Your task to perform on an android device: turn notification dots off Image 0: 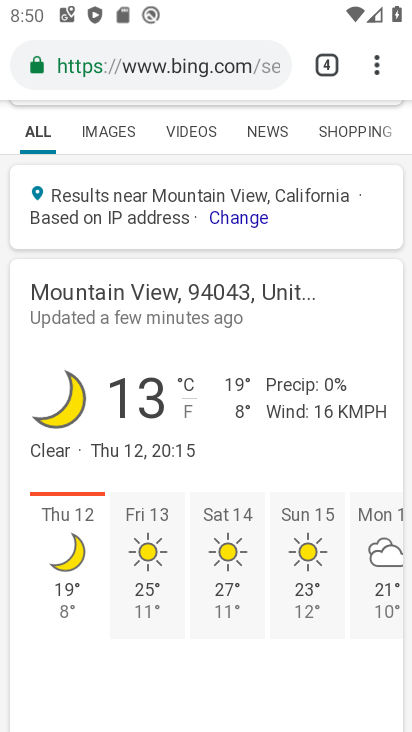
Step 0: press home button
Your task to perform on an android device: turn notification dots off Image 1: 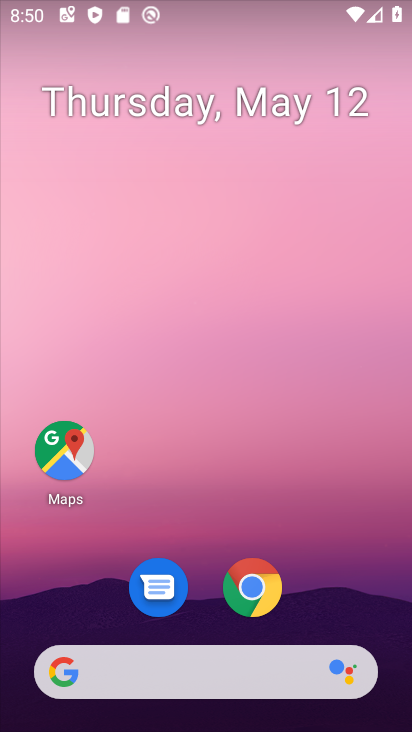
Step 1: drag from (307, 564) to (309, 273)
Your task to perform on an android device: turn notification dots off Image 2: 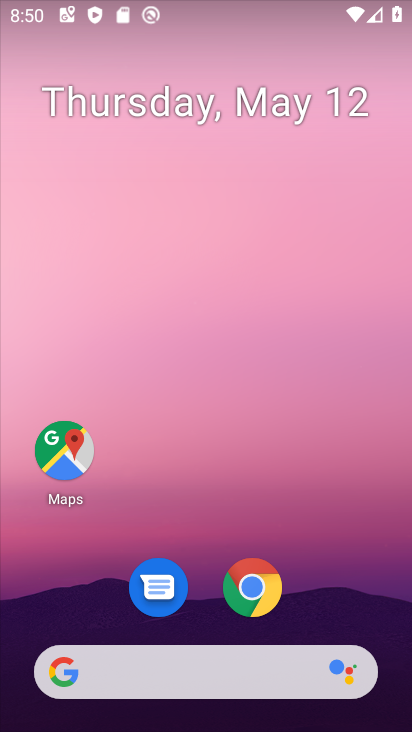
Step 2: drag from (296, 604) to (300, 231)
Your task to perform on an android device: turn notification dots off Image 3: 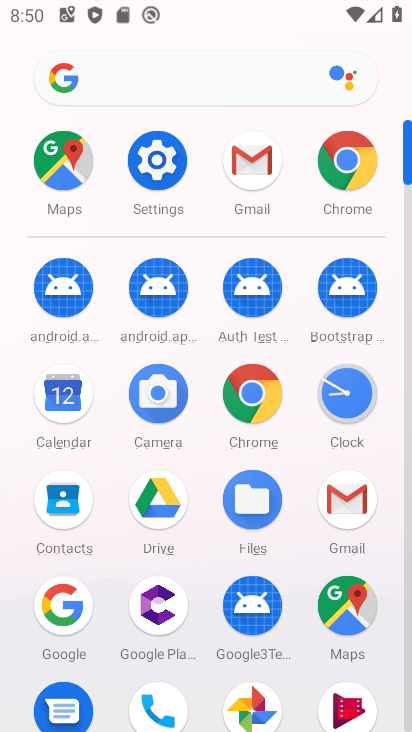
Step 3: click (146, 158)
Your task to perform on an android device: turn notification dots off Image 4: 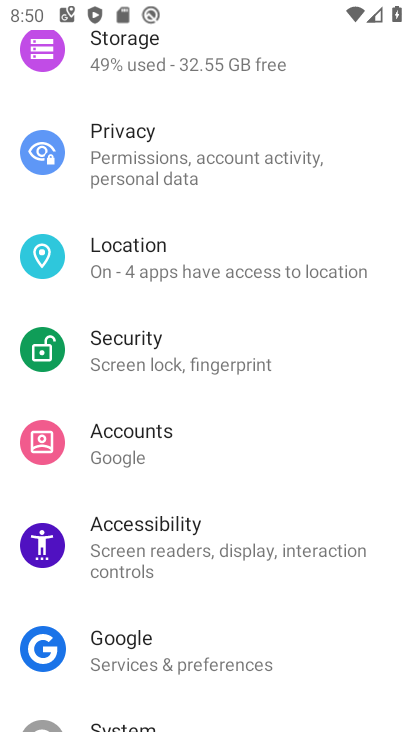
Step 4: drag from (203, 143) to (203, 684)
Your task to perform on an android device: turn notification dots off Image 5: 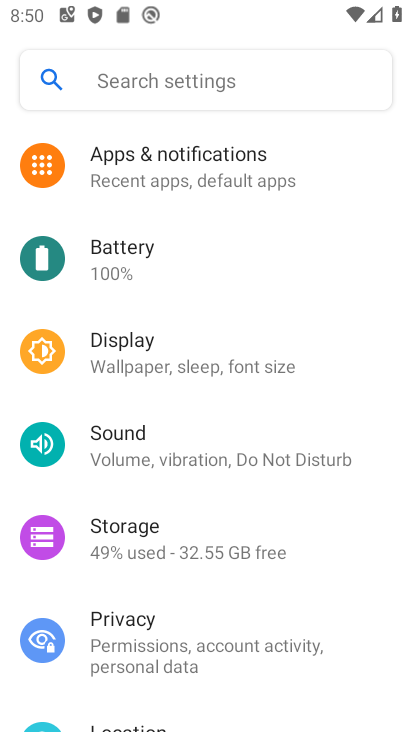
Step 5: click (175, 75)
Your task to perform on an android device: turn notification dots off Image 6: 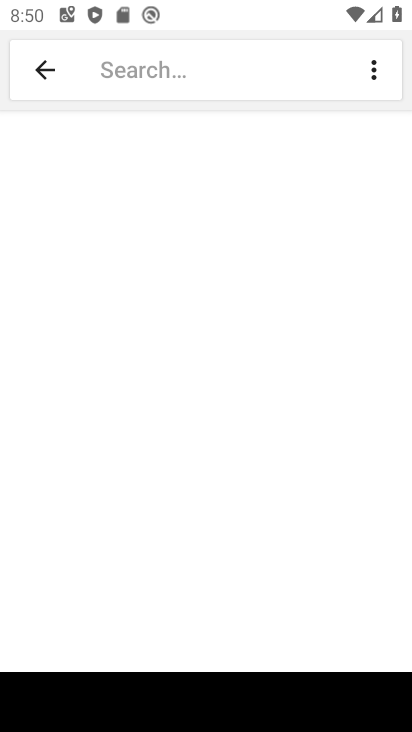
Step 6: click (157, 50)
Your task to perform on an android device: turn notification dots off Image 7: 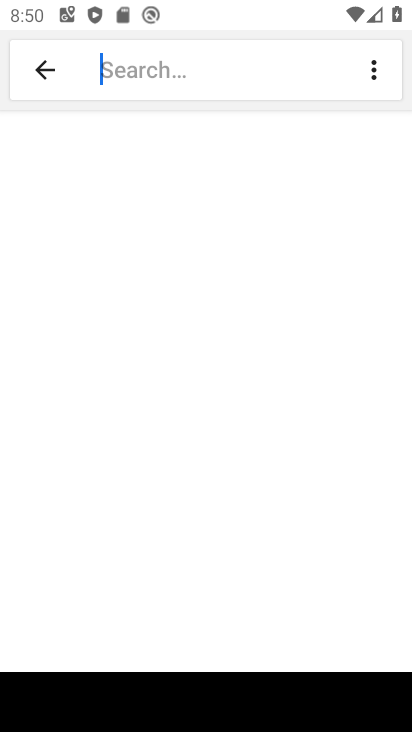
Step 7: type " notification dots"
Your task to perform on an android device: turn notification dots off Image 8: 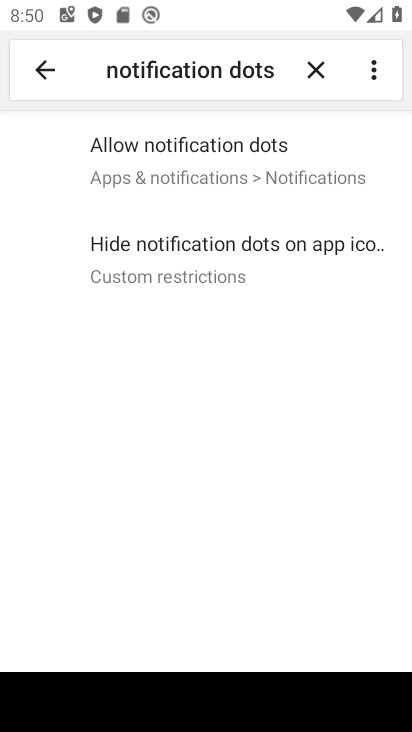
Step 8: click (212, 129)
Your task to perform on an android device: turn notification dots off Image 9: 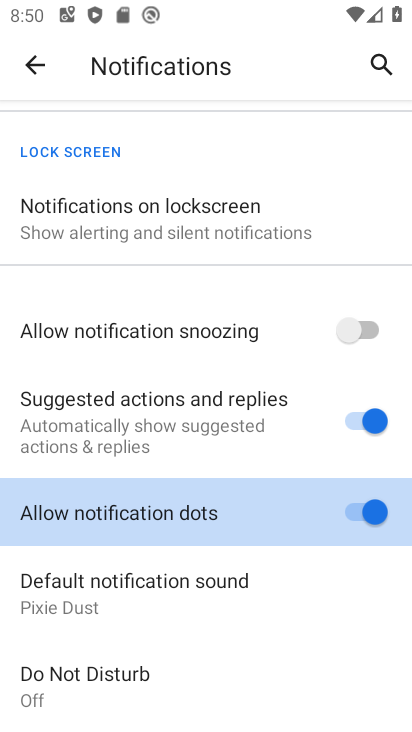
Step 9: click (357, 507)
Your task to perform on an android device: turn notification dots off Image 10: 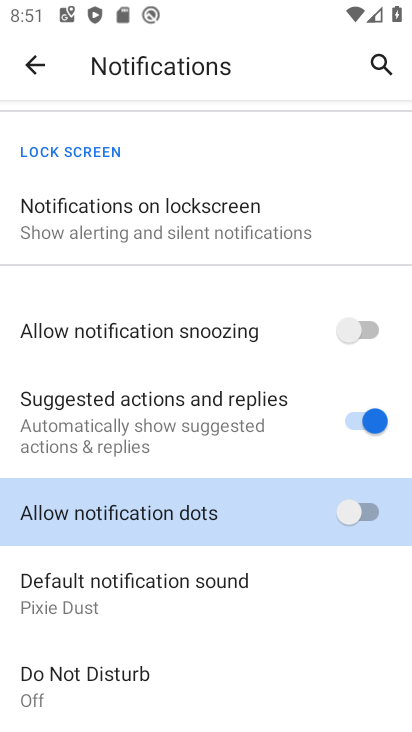
Step 10: task complete